Your task to perform on an android device: turn off sleep mode Image 0: 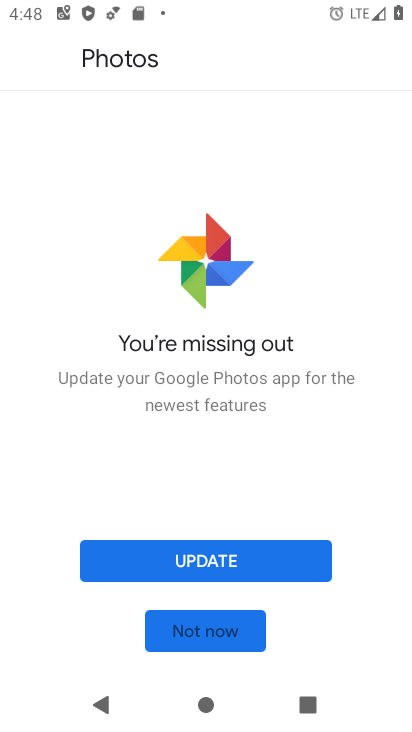
Step 0: press home button
Your task to perform on an android device: turn off sleep mode Image 1: 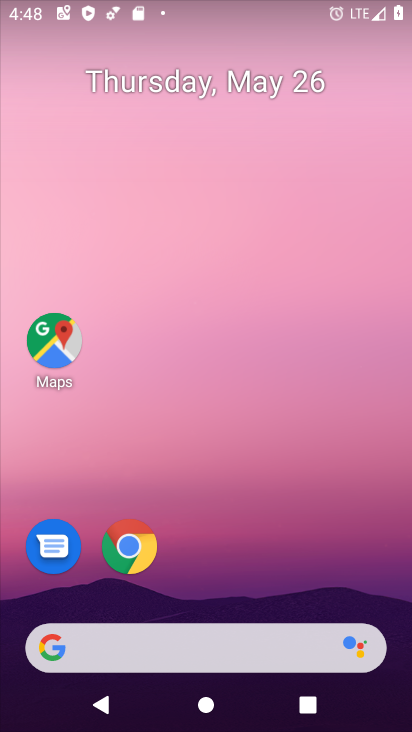
Step 1: drag from (225, 522) to (237, 52)
Your task to perform on an android device: turn off sleep mode Image 2: 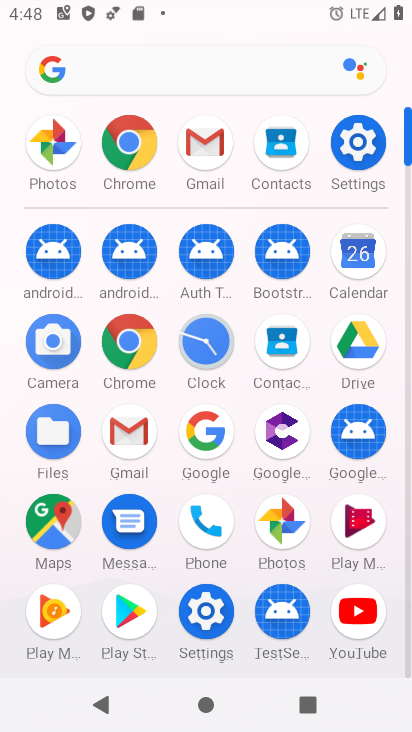
Step 2: click (354, 156)
Your task to perform on an android device: turn off sleep mode Image 3: 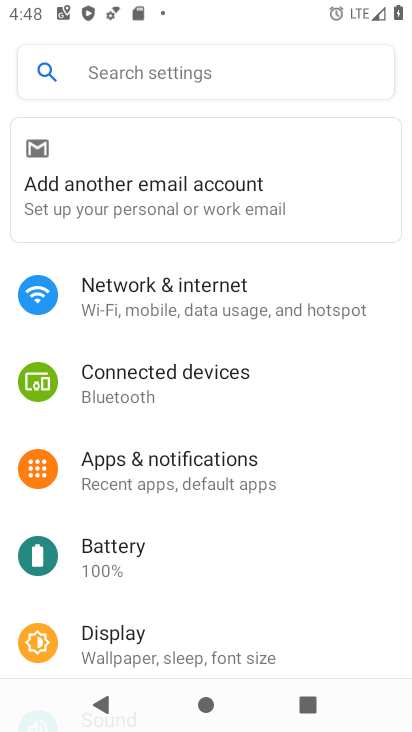
Step 3: click (137, 64)
Your task to perform on an android device: turn off sleep mode Image 4: 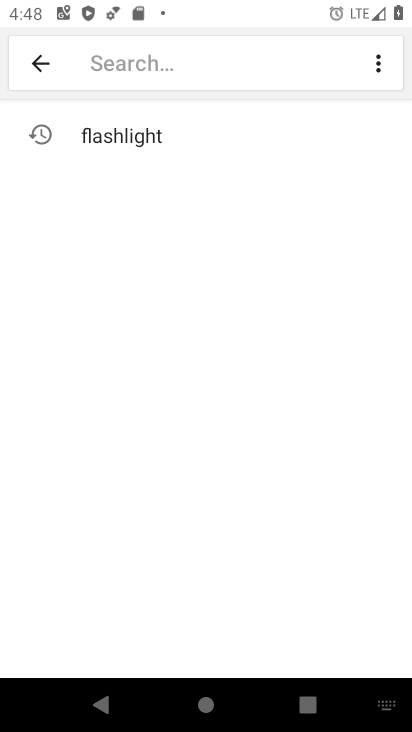
Step 4: type "sleep mode"
Your task to perform on an android device: turn off sleep mode Image 5: 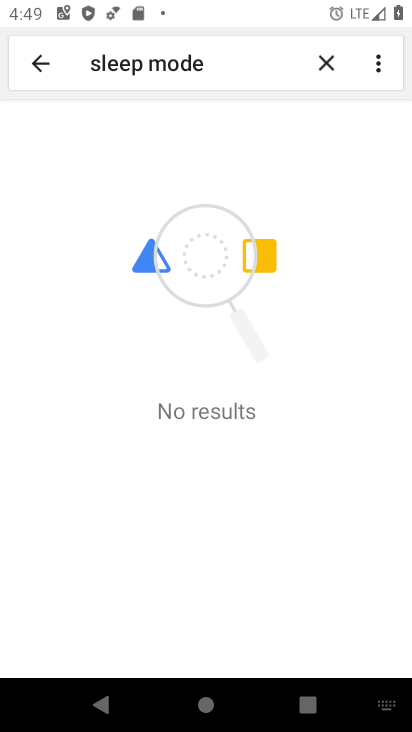
Step 5: task complete